Your task to perform on an android device: open app "Firefox Browser" (install if not already installed) Image 0: 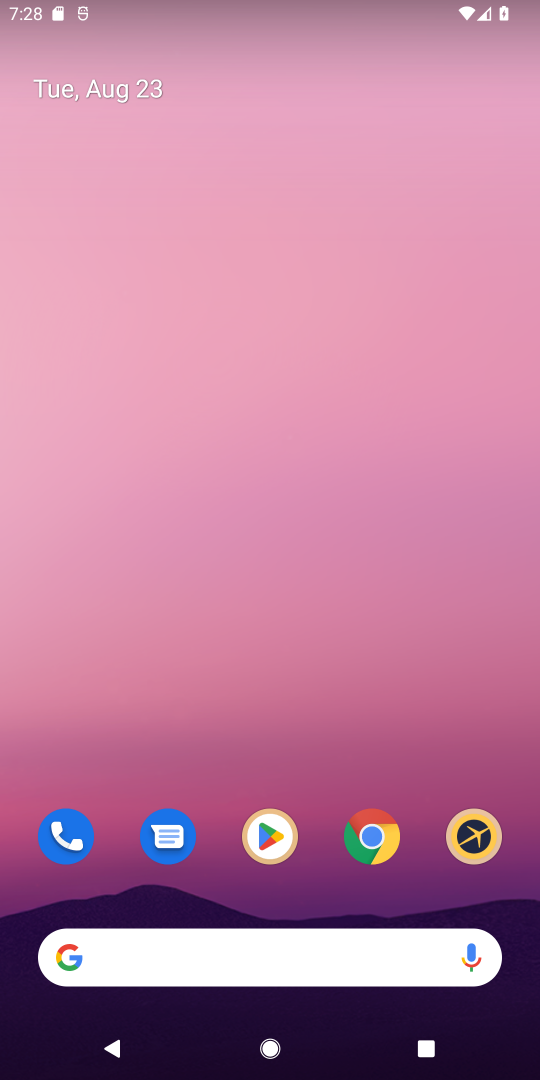
Step 0: click (264, 839)
Your task to perform on an android device: open app "Firefox Browser" (install if not already installed) Image 1: 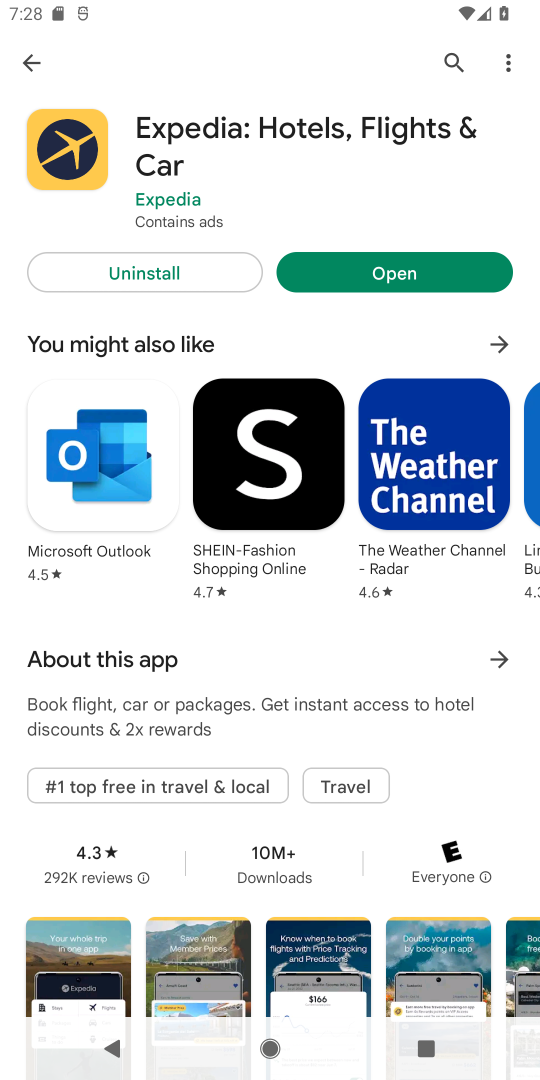
Step 1: click (452, 60)
Your task to perform on an android device: open app "Firefox Browser" (install if not already installed) Image 2: 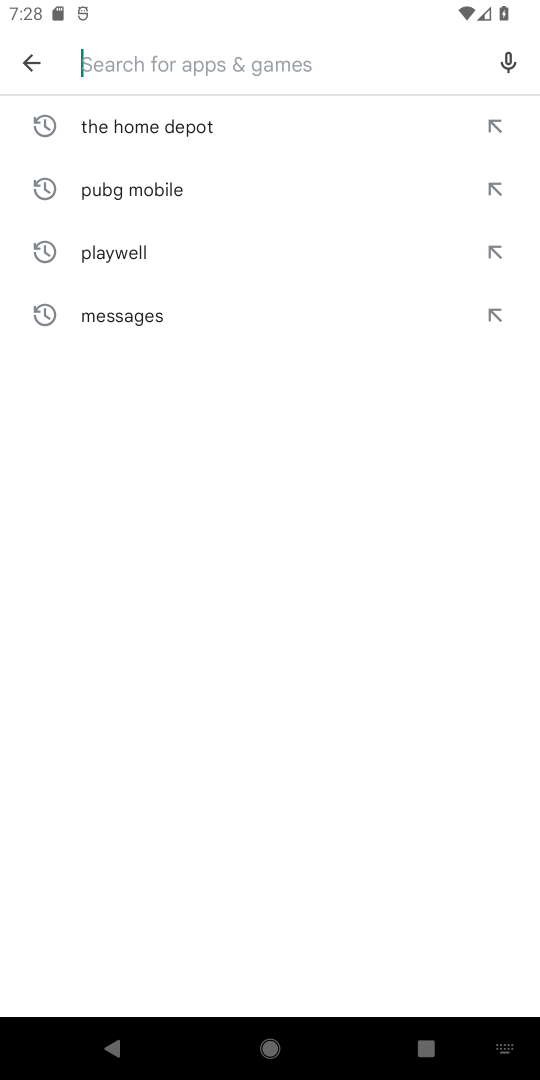
Step 2: type "Firefox Browser"
Your task to perform on an android device: open app "Firefox Browser" (install if not already installed) Image 3: 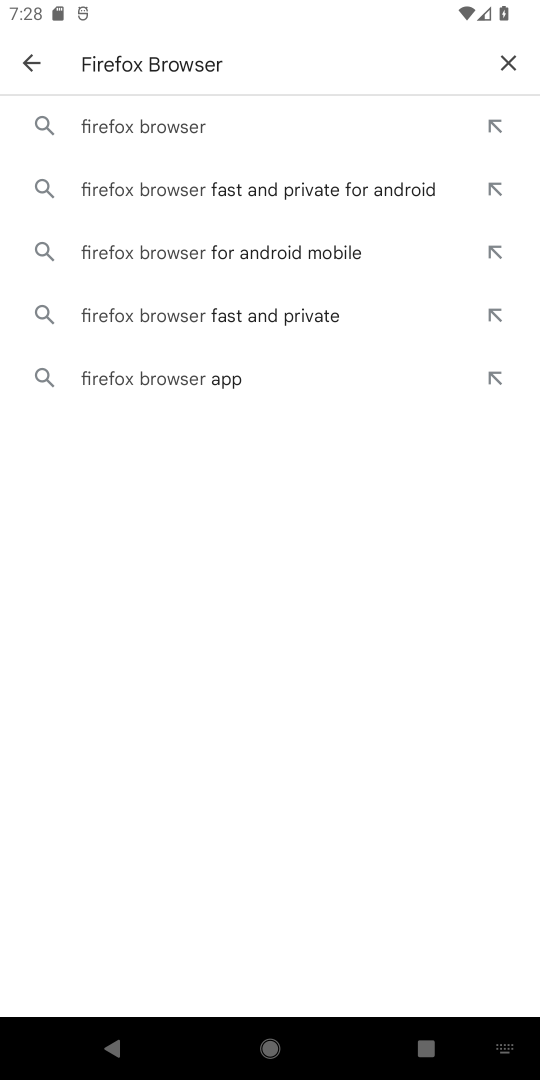
Step 3: click (119, 116)
Your task to perform on an android device: open app "Firefox Browser" (install if not already installed) Image 4: 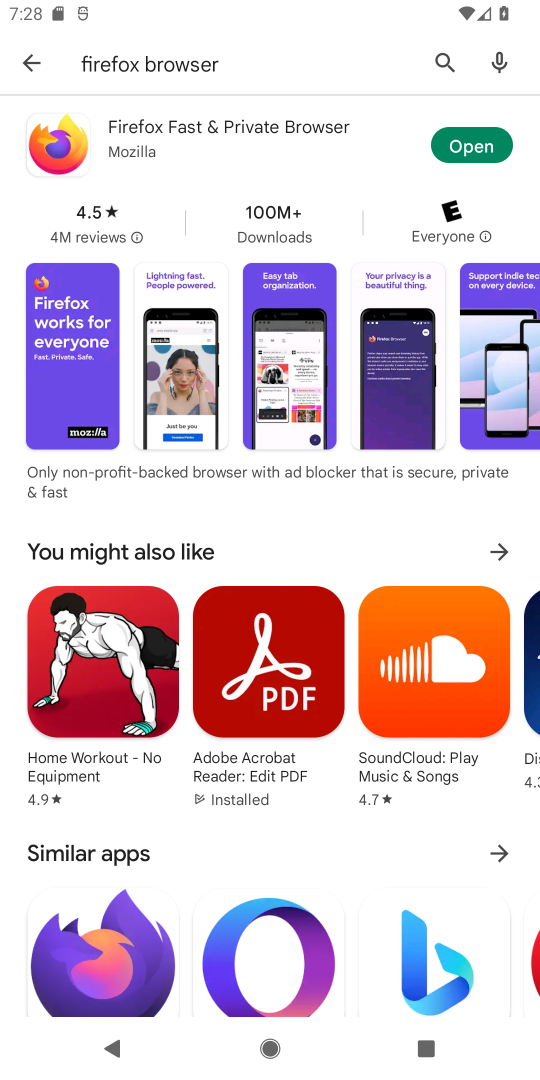
Step 4: click (476, 154)
Your task to perform on an android device: open app "Firefox Browser" (install if not already installed) Image 5: 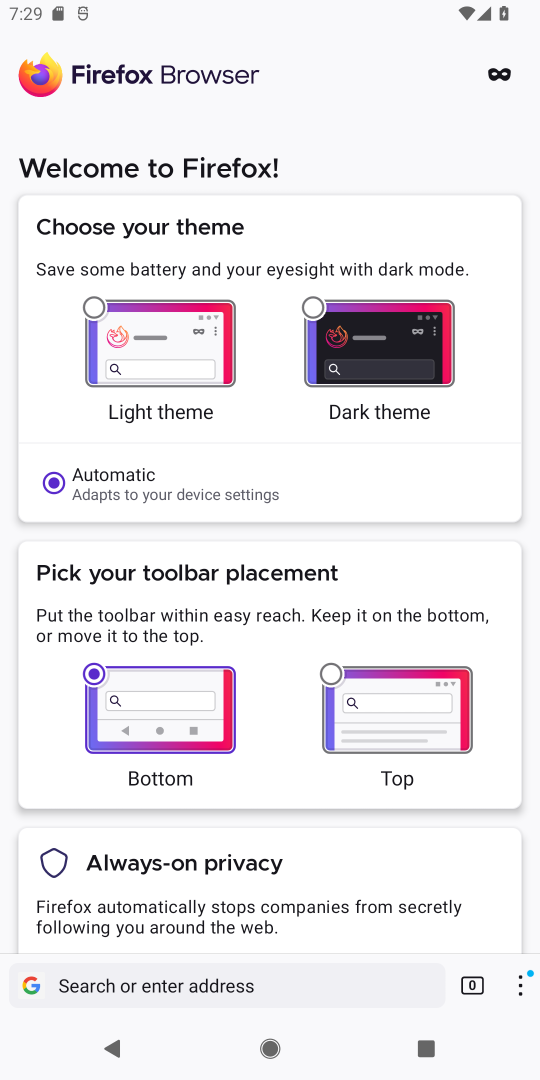
Step 5: task complete